Your task to perform on an android device: toggle notification dots Image 0: 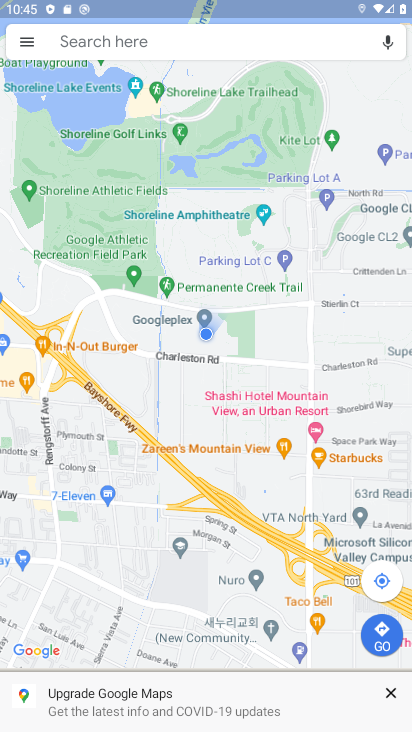
Step 0: press home button
Your task to perform on an android device: toggle notification dots Image 1: 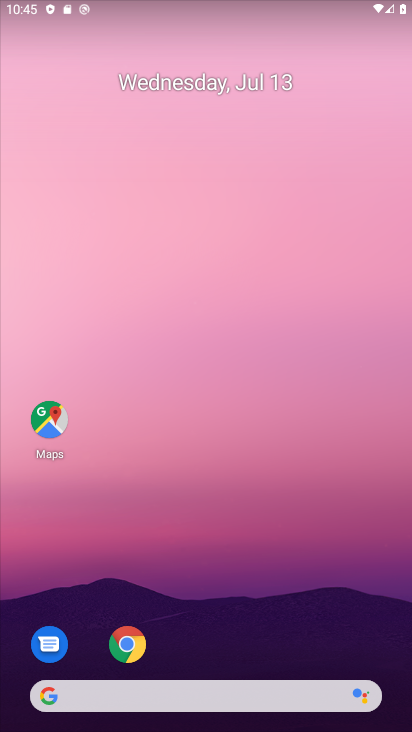
Step 1: drag from (261, 579) to (144, 38)
Your task to perform on an android device: toggle notification dots Image 2: 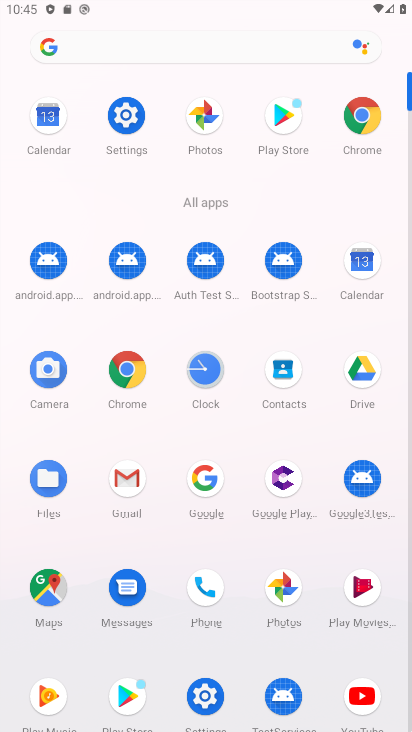
Step 2: click (126, 113)
Your task to perform on an android device: toggle notification dots Image 3: 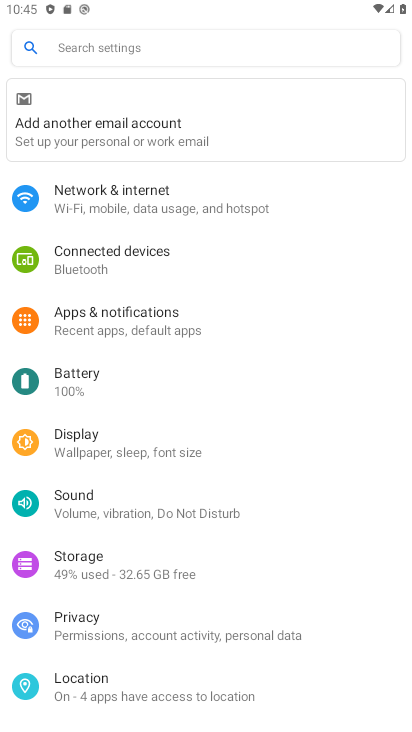
Step 3: click (114, 315)
Your task to perform on an android device: toggle notification dots Image 4: 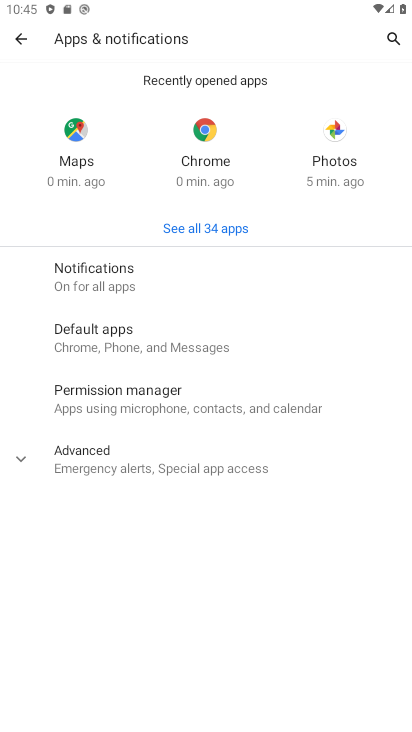
Step 4: click (86, 267)
Your task to perform on an android device: toggle notification dots Image 5: 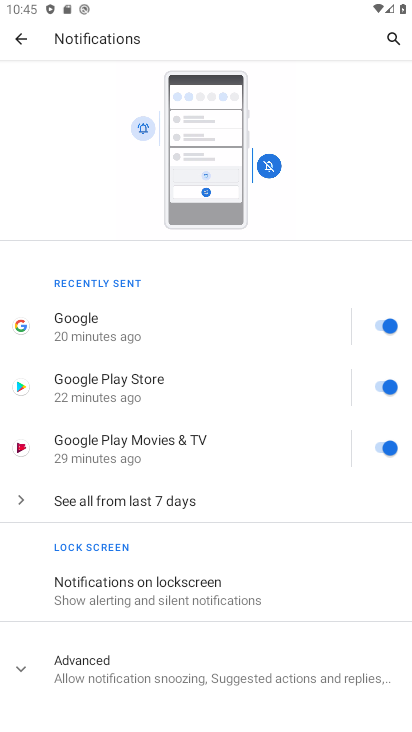
Step 5: click (24, 668)
Your task to perform on an android device: toggle notification dots Image 6: 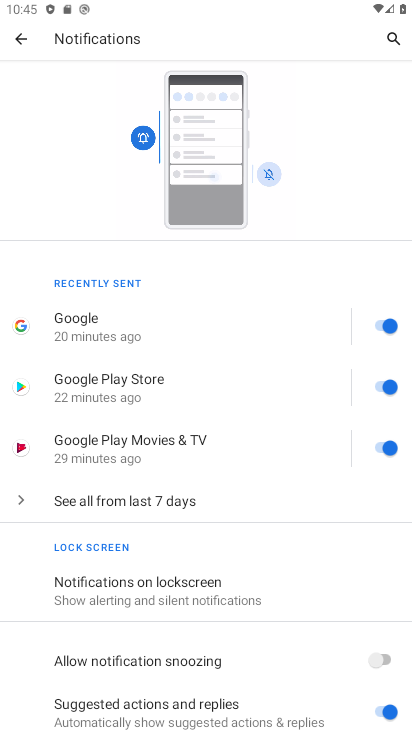
Step 6: drag from (262, 658) to (225, 385)
Your task to perform on an android device: toggle notification dots Image 7: 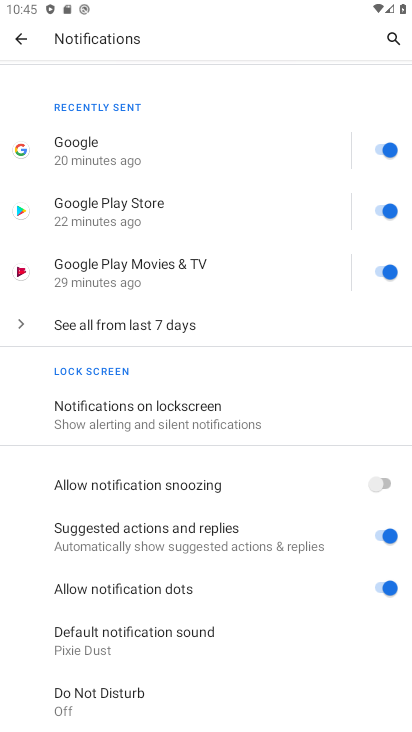
Step 7: click (382, 591)
Your task to perform on an android device: toggle notification dots Image 8: 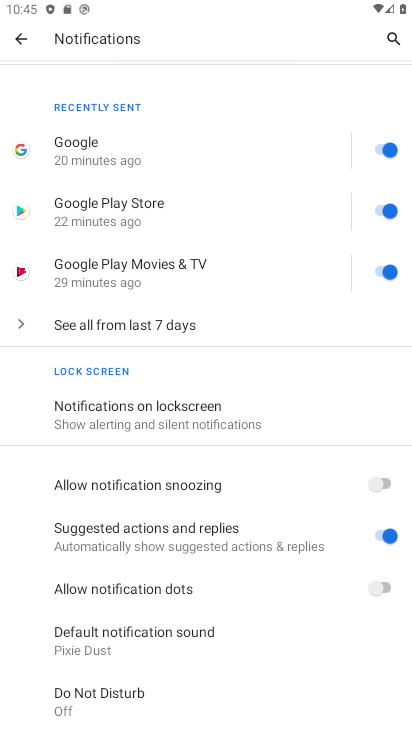
Step 8: task complete